Your task to perform on an android device: Open Yahoo.com Image 0: 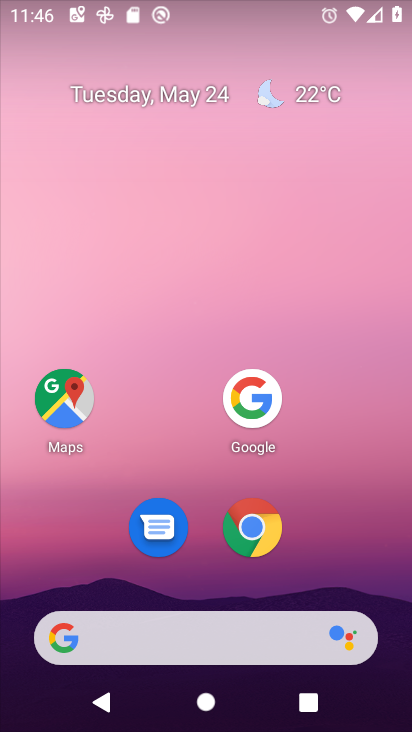
Step 0: drag from (193, 640) to (241, 107)
Your task to perform on an android device: Open Yahoo.com Image 1: 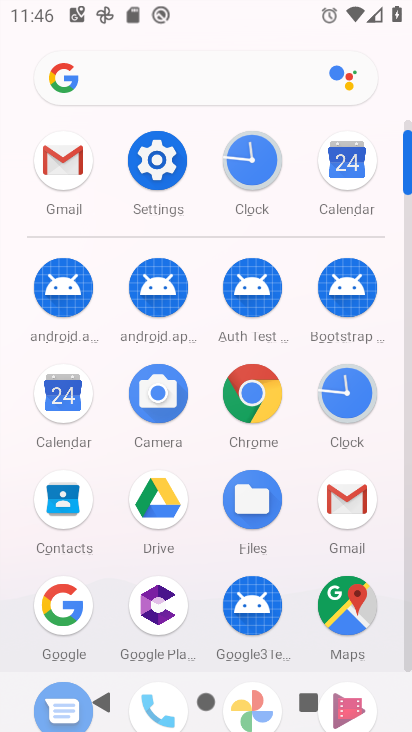
Step 1: click (257, 392)
Your task to perform on an android device: Open Yahoo.com Image 2: 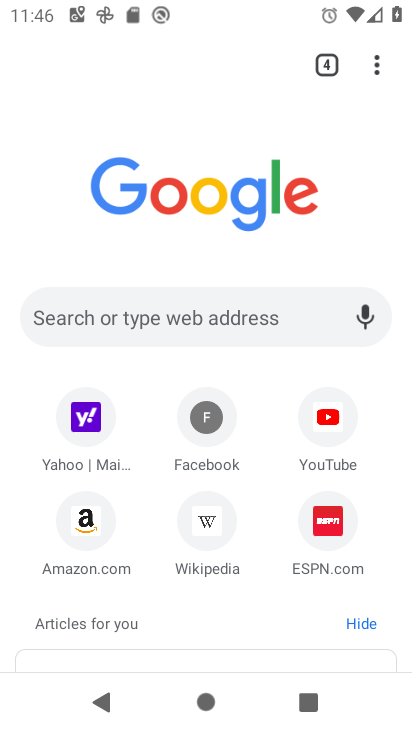
Step 2: click (89, 412)
Your task to perform on an android device: Open Yahoo.com Image 3: 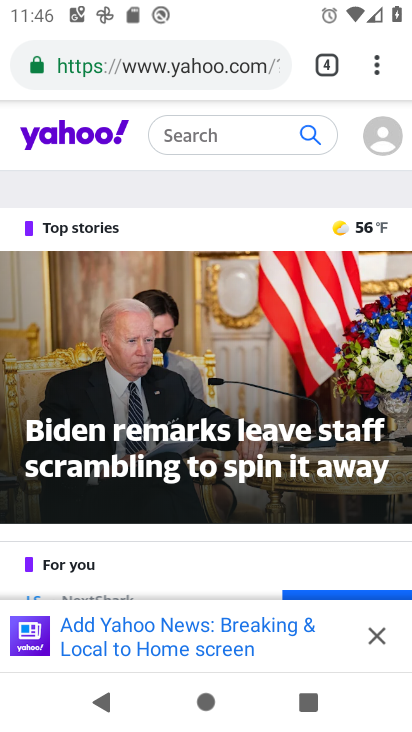
Step 3: task complete